Your task to perform on an android device: open app "Facebook Messenger" Image 0: 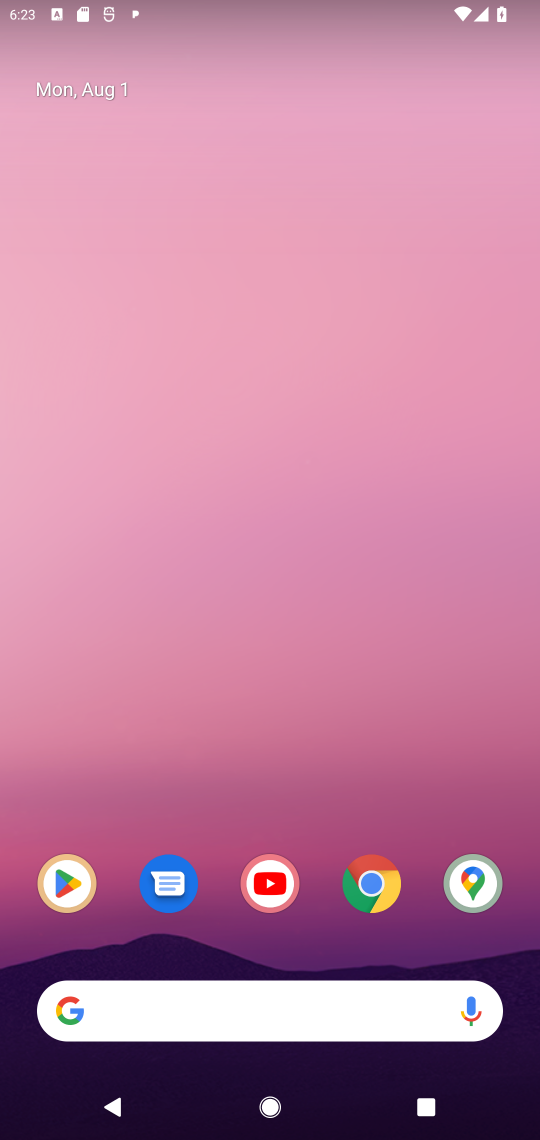
Step 0: click (59, 887)
Your task to perform on an android device: open app "Facebook Messenger" Image 1: 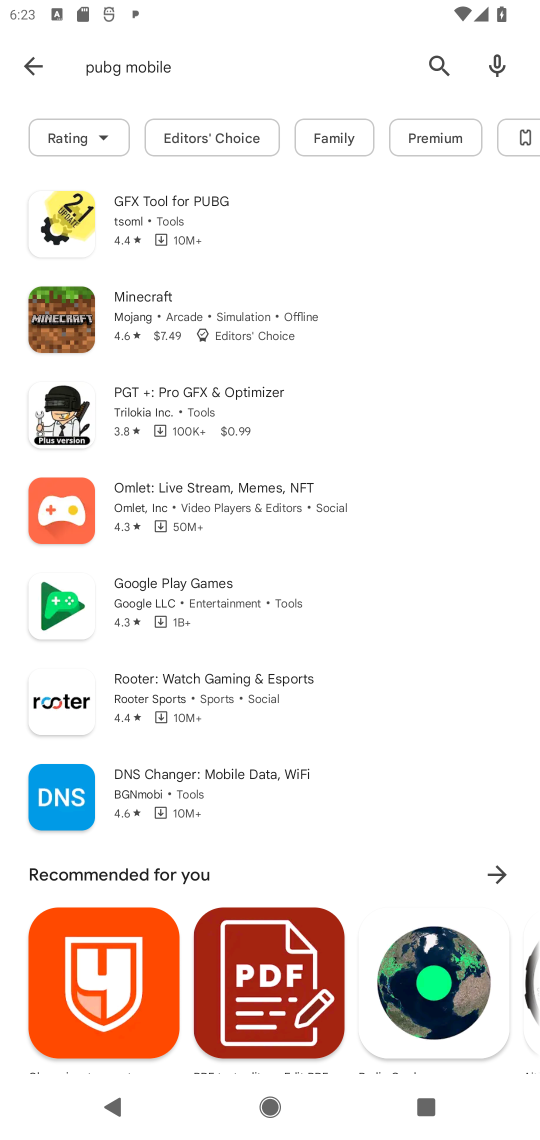
Step 1: click (35, 64)
Your task to perform on an android device: open app "Facebook Messenger" Image 2: 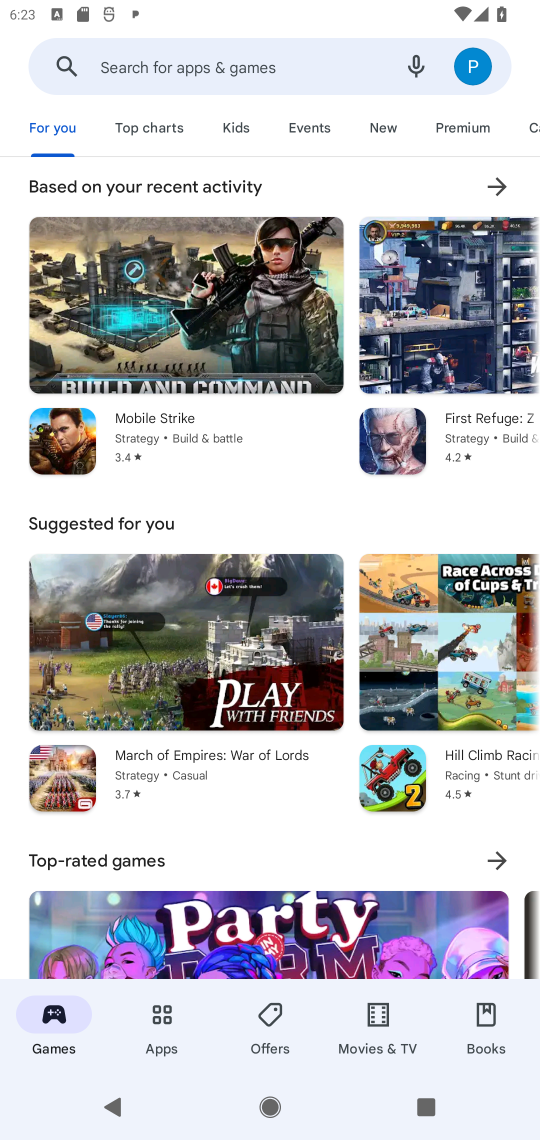
Step 2: click (195, 63)
Your task to perform on an android device: open app "Facebook Messenger" Image 3: 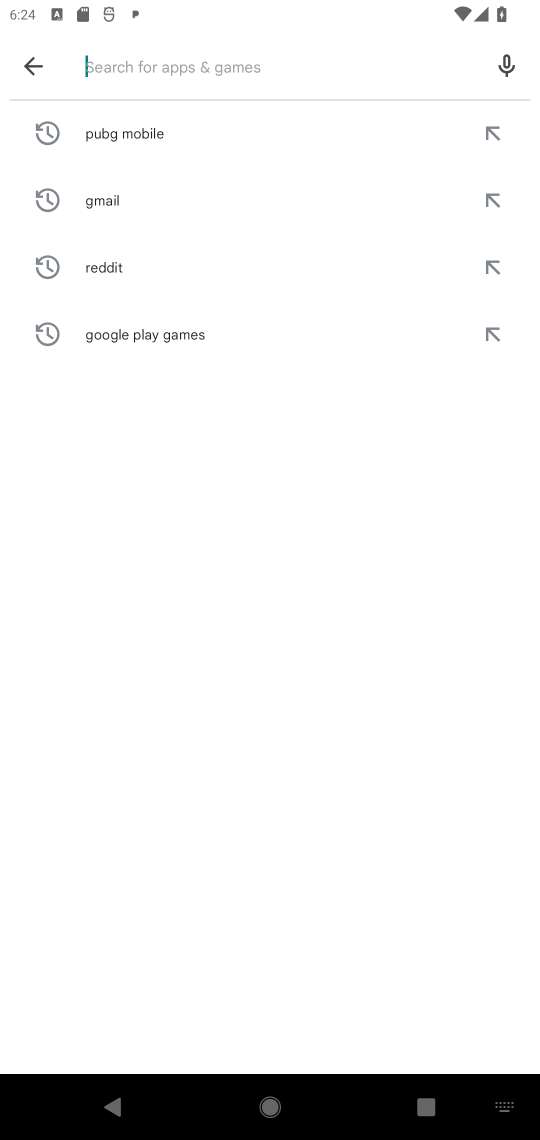
Step 3: type "Facebook Messenger"
Your task to perform on an android device: open app "Facebook Messenger" Image 4: 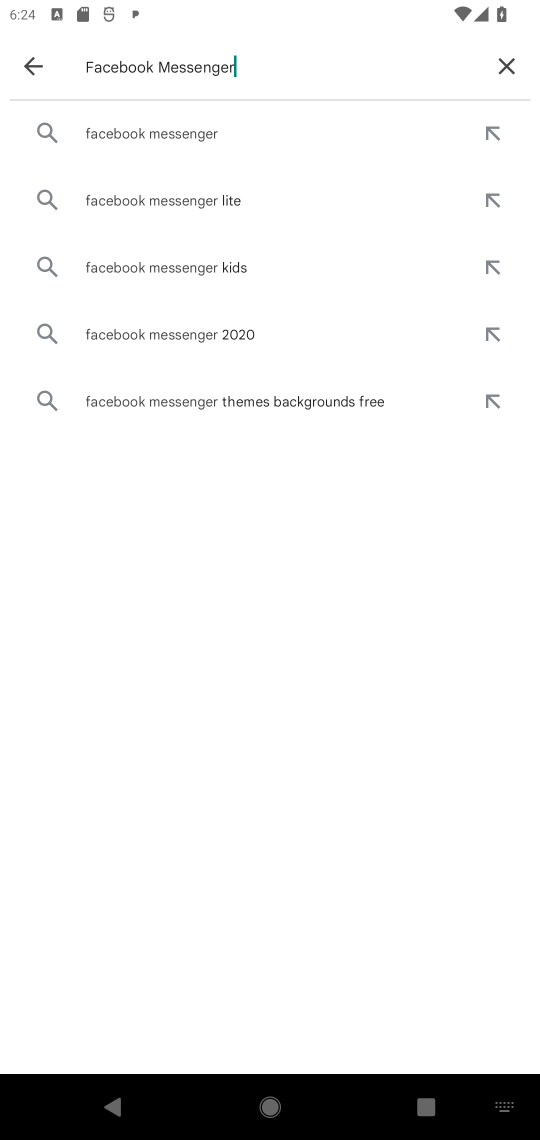
Step 4: click (204, 124)
Your task to perform on an android device: open app "Facebook Messenger" Image 5: 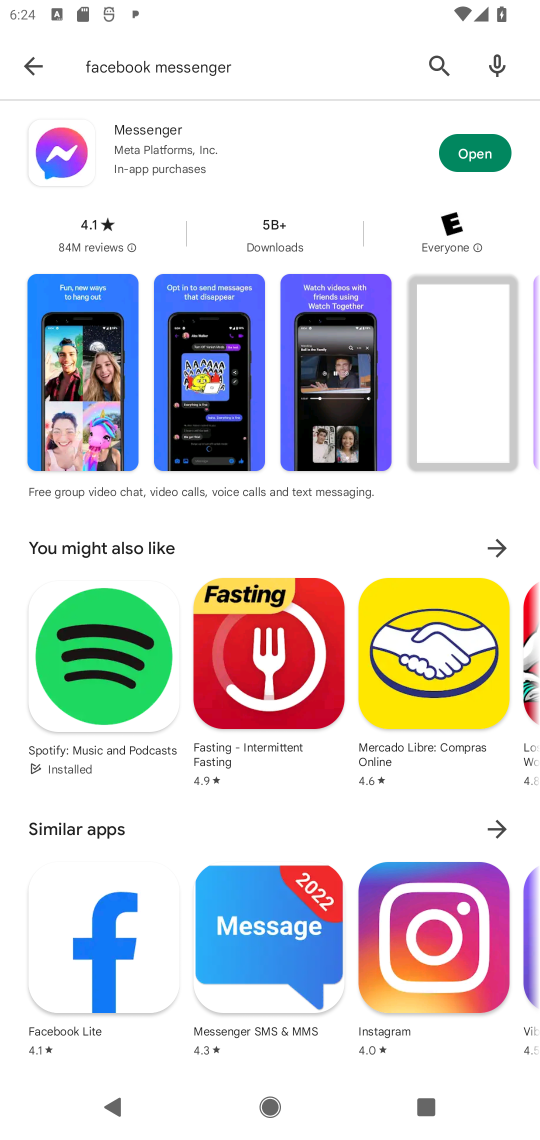
Step 5: click (459, 152)
Your task to perform on an android device: open app "Facebook Messenger" Image 6: 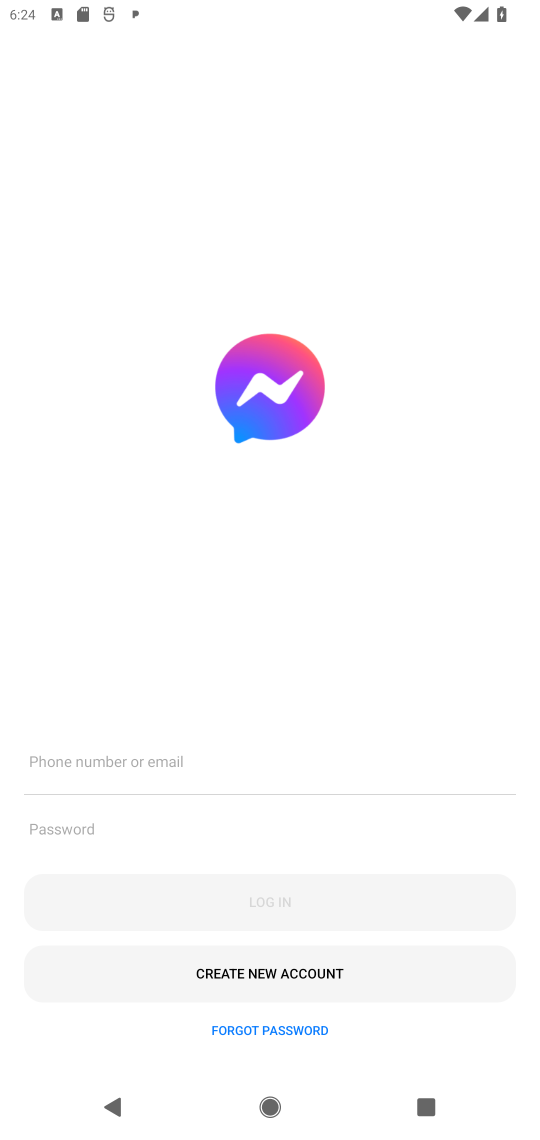
Step 6: task complete